Your task to perform on an android device: Go to Amazon Image 0: 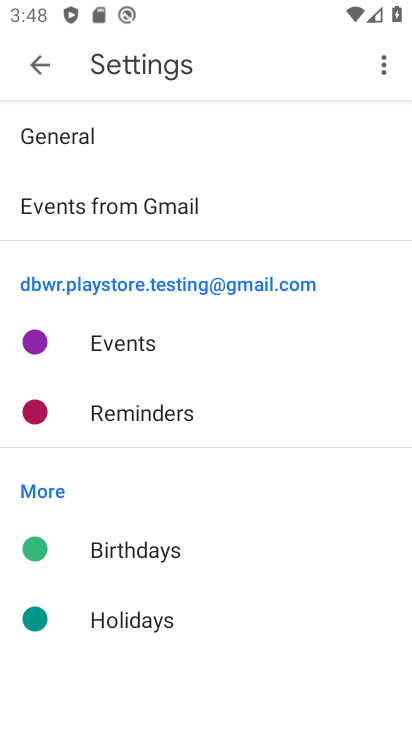
Step 0: press home button
Your task to perform on an android device: Go to Amazon Image 1: 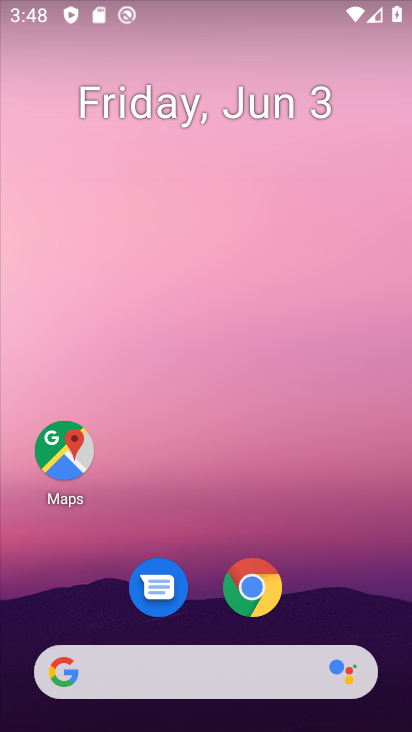
Step 1: click (242, 604)
Your task to perform on an android device: Go to Amazon Image 2: 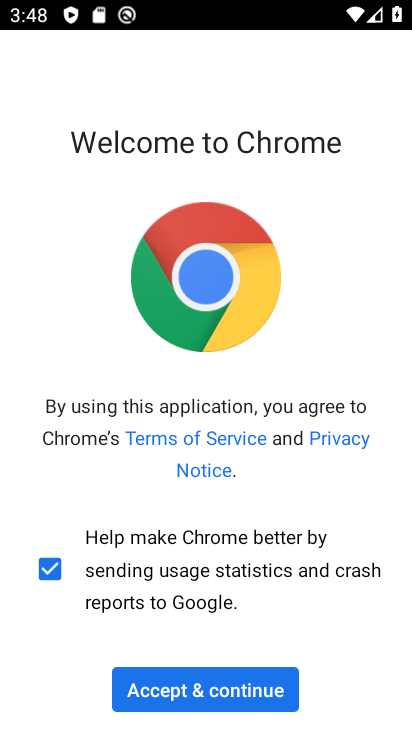
Step 2: click (244, 678)
Your task to perform on an android device: Go to Amazon Image 3: 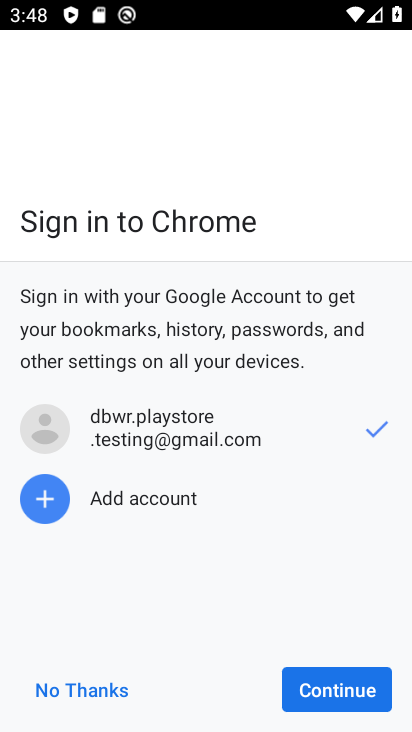
Step 3: click (306, 687)
Your task to perform on an android device: Go to Amazon Image 4: 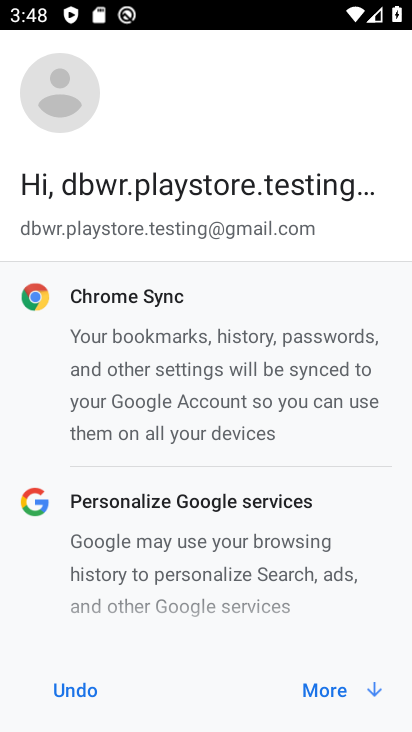
Step 4: click (297, 689)
Your task to perform on an android device: Go to Amazon Image 5: 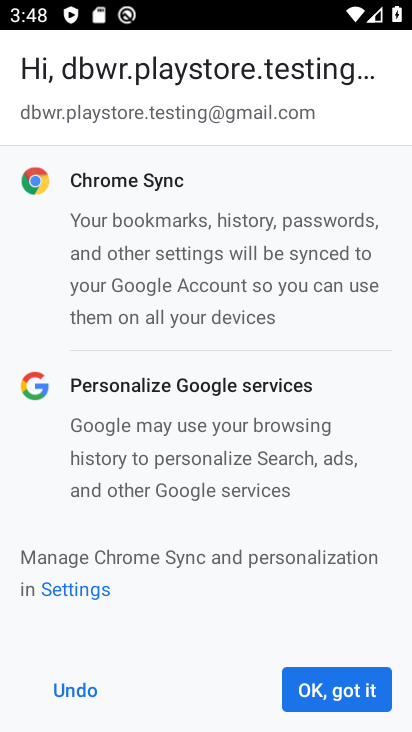
Step 5: click (297, 689)
Your task to perform on an android device: Go to Amazon Image 6: 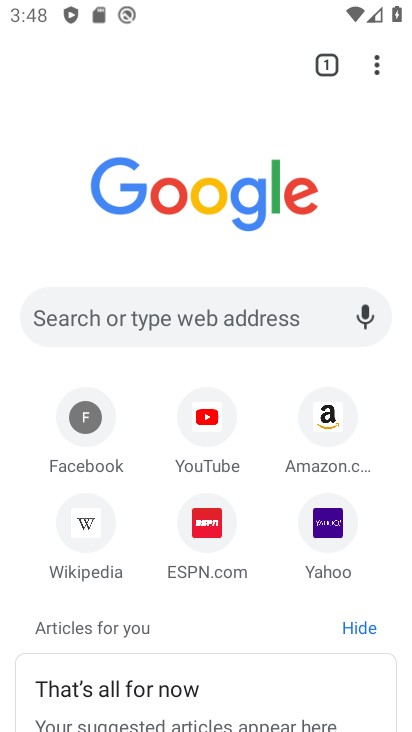
Step 6: click (327, 402)
Your task to perform on an android device: Go to Amazon Image 7: 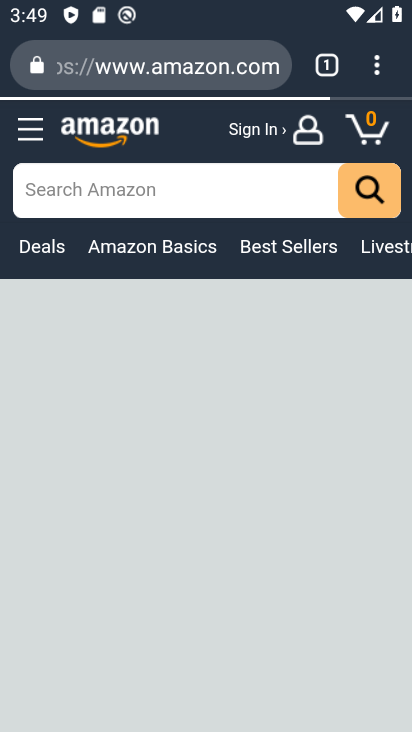
Step 7: task complete